Your task to perform on an android device: toggle wifi Image 0: 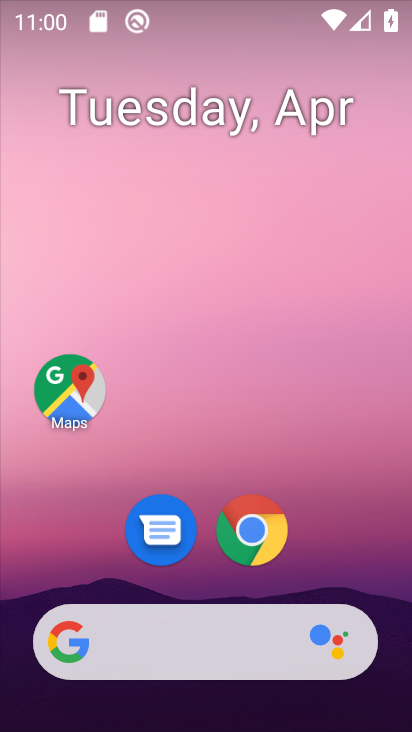
Step 0: drag from (171, 653) to (293, 90)
Your task to perform on an android device: toggle wifi Image 1: 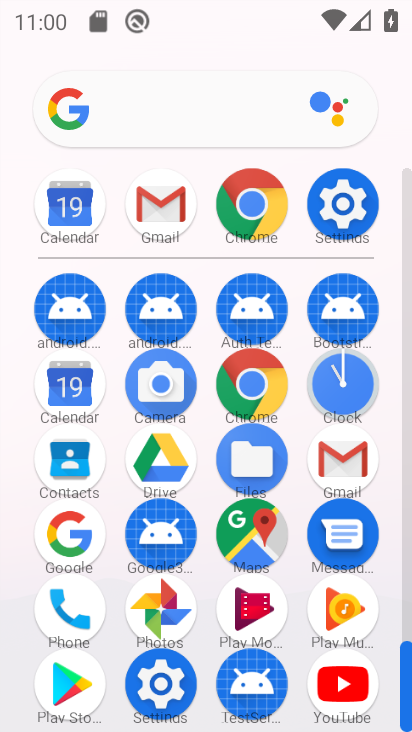
Step 1: click (338, 206)
Your task to perform on an android device: toggle wifi Image 2: 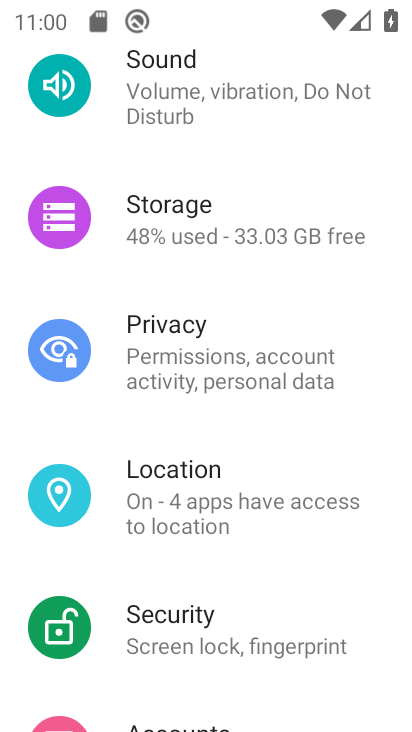
Step 2: drag from (265, 128) to (263, 578)
Your task to perform on an android device: toggle wifi Image 3: 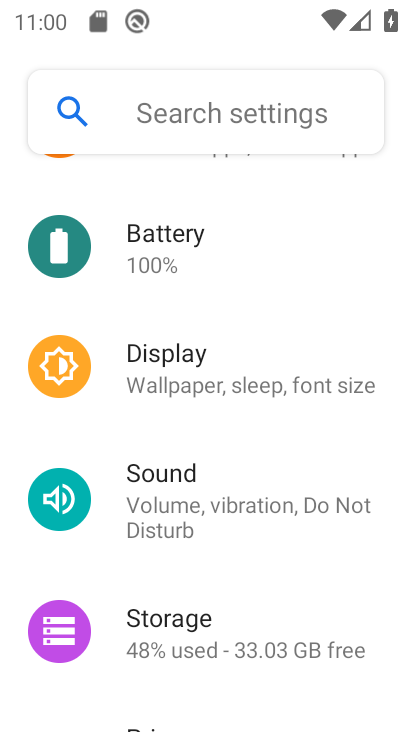
Step 3: drag from (305, 352) to (280, 636)
Your task to perform on an android device: toggle wifi Image 4: 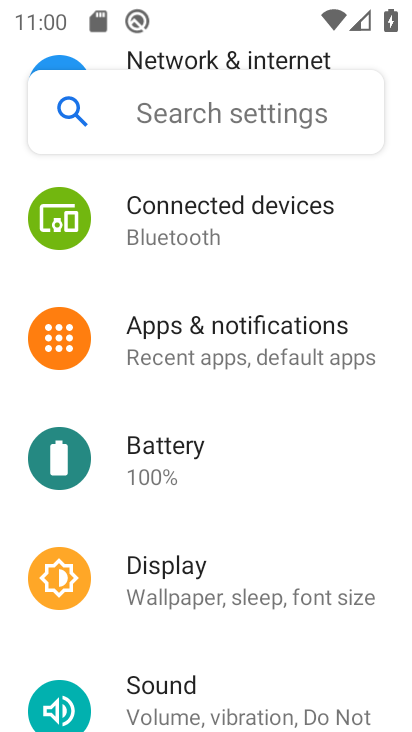
Step 4: drag from (292, 265) to (303, 634)
Your task to perform on an android device: toggle wifi Image 5: 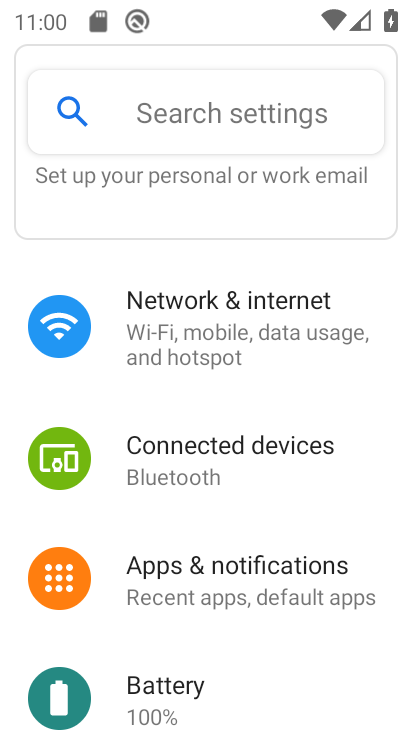
Step 5: click (238, 302)
Your task to perform on an android device: toggle wifi Image 6: 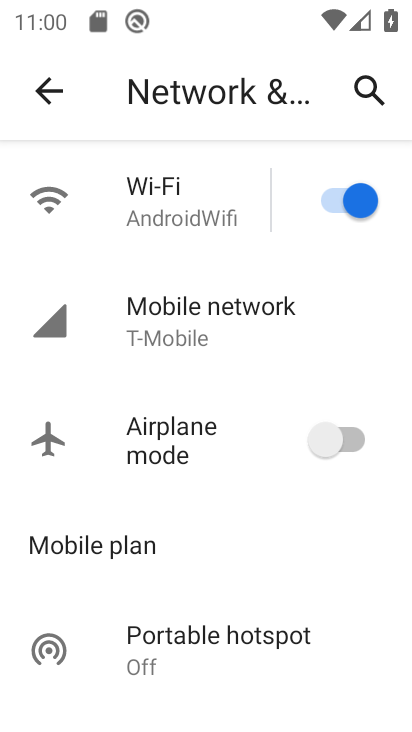
Step 6: click (330, 202)
Your task to perform on an android device: toggle wifi Image 7: 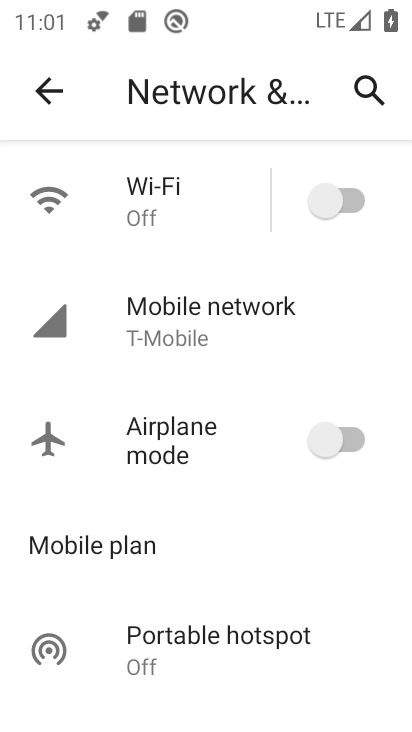
Step 7: task complete